Your task to perform on an android device: check storage Image 0: 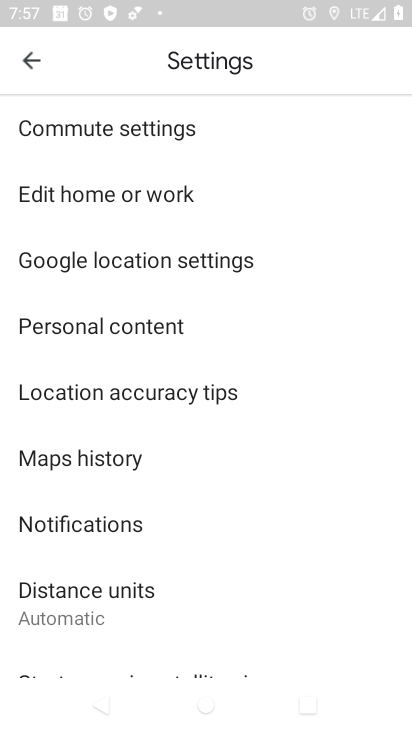
Step 0: press home button
Your task to perform on an android device: check storage Image 1: 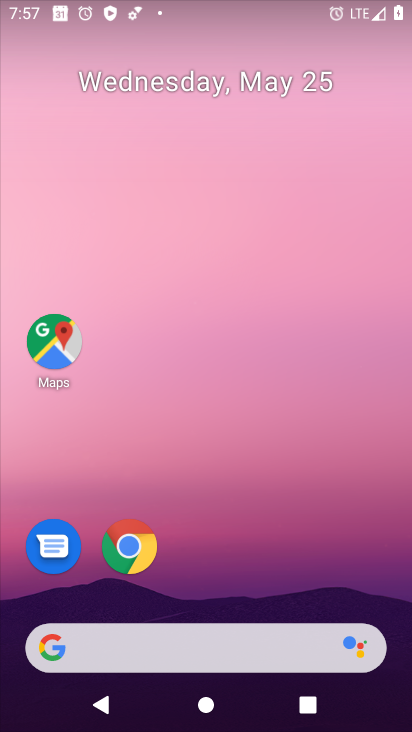
Step 1: drag from (379, 586) to (350, 199)
Your task to perform on an android device: check storage Image 2: 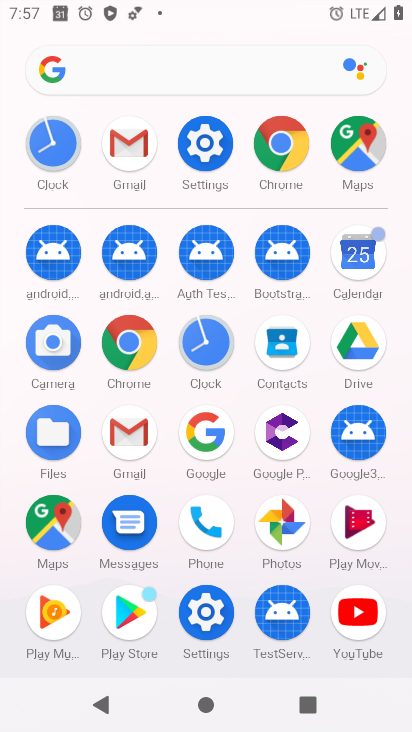
Step 2: click (216, 629)
Your task to perform on an android device: check storage Image 3: 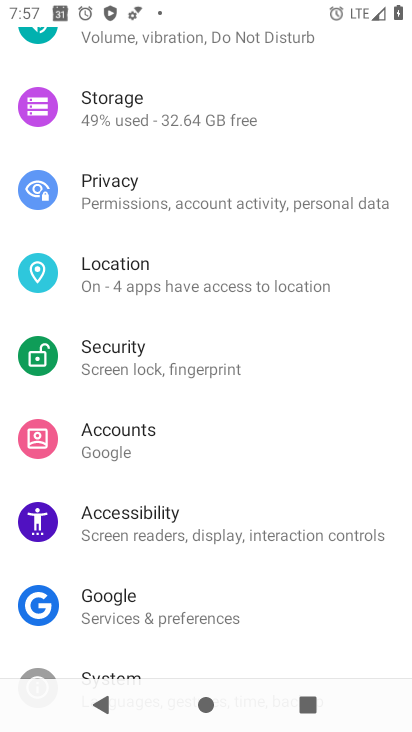
Step 3: drag from (337, 648) to (336, 524)
Your task to perform on an android device: check storage Image 4: 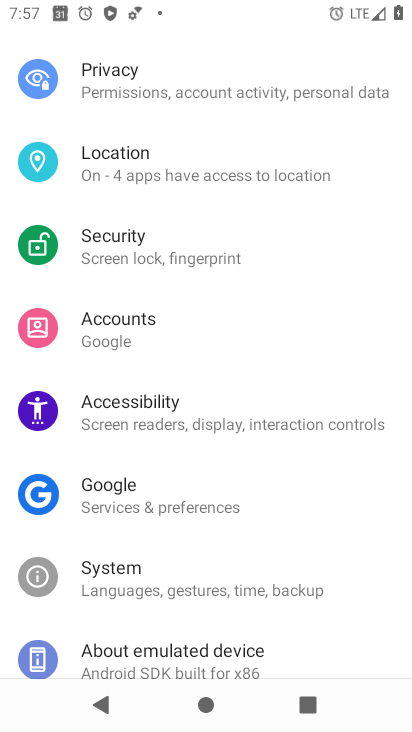
Step 4: drag from (356, 645) to (362, 524)
Your task to perform on an android device: check storage Image 5: 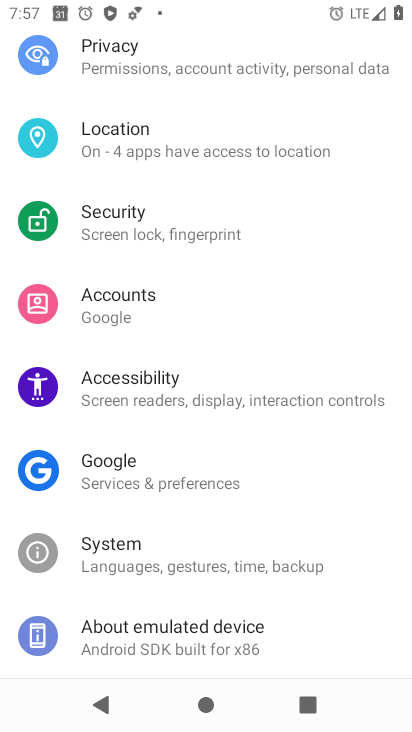
Step 5: drag from (352, 455) to (355, 525)
Your task to perform on an android device: check storage Image 6: 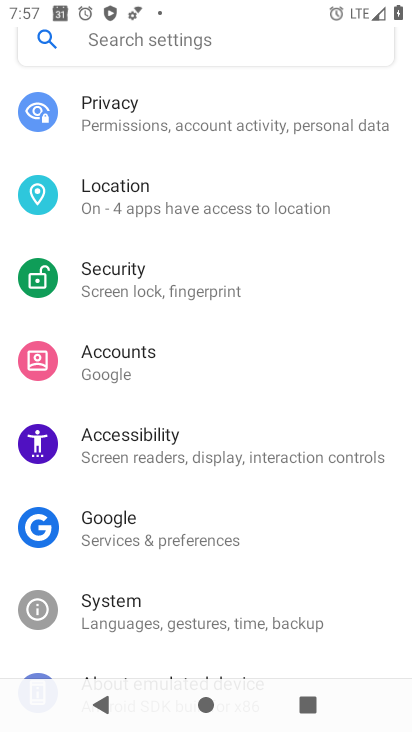
Step 6: drag from (367, 413) to (365, 493)
Your task to perform on an android device: check storage Image 7: 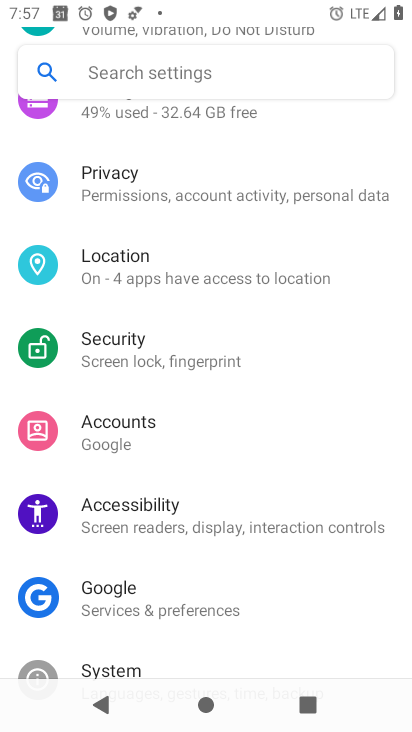
Step 7: drag from (359, 426) to (361, 502)
Your task to perform on an android device: check storage Image 8: 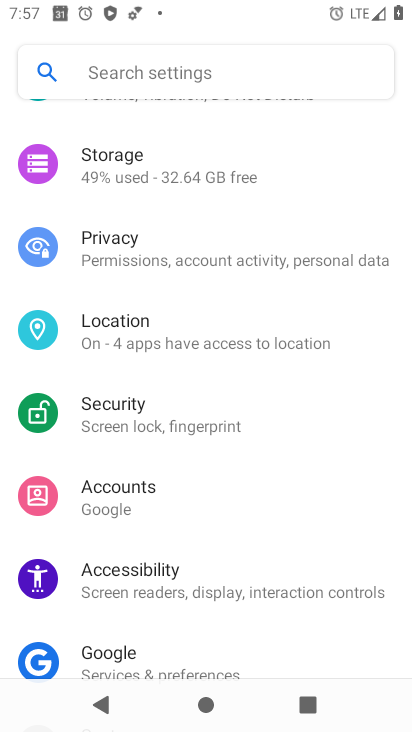
Step 8: drag from (359, 400) to (353, 504)
Your task to perform on an android device: check storage Image 9: 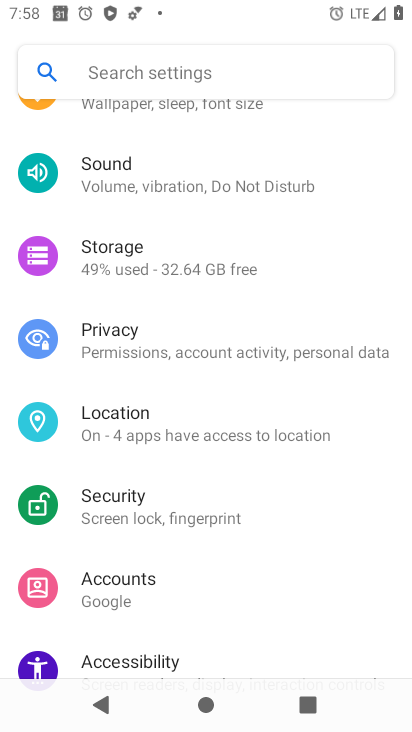
Step 9: drag from (337, 435) to (340, 509)
Your task to perform on an android device: check storage Image 10: 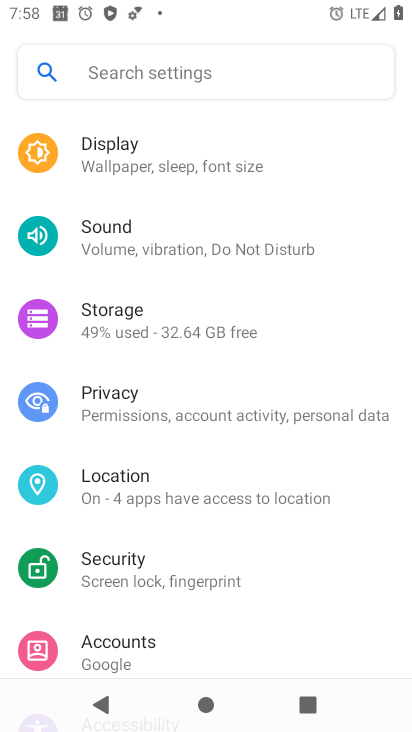
Step 10: drag from (349, 444) to (352, 508)
Your task to perform on an android device: check storage Image 11: 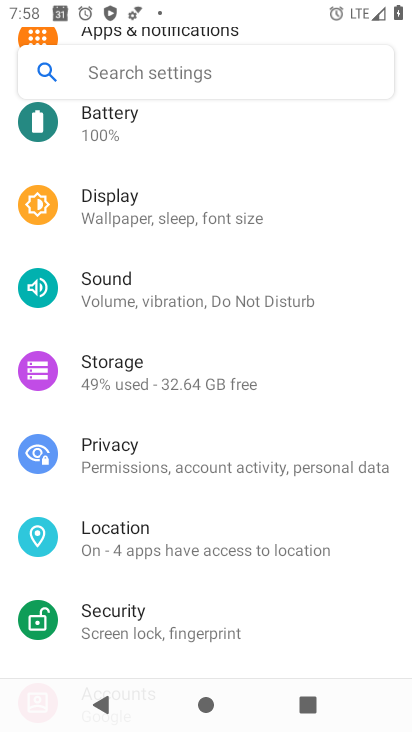
Step 11: drag from (357, 422) to (357, 525)
Your task to perform on an android device: check storage Image 12: 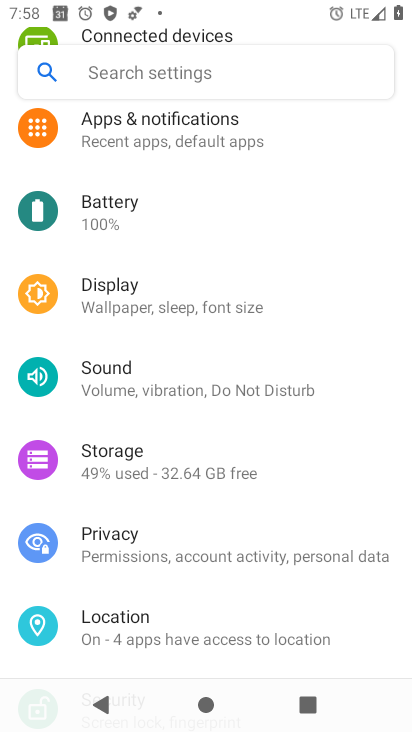
Step 12: drag from (360, 436) to (362, 527)
Your task to perform on an android device: check storage Image 13: 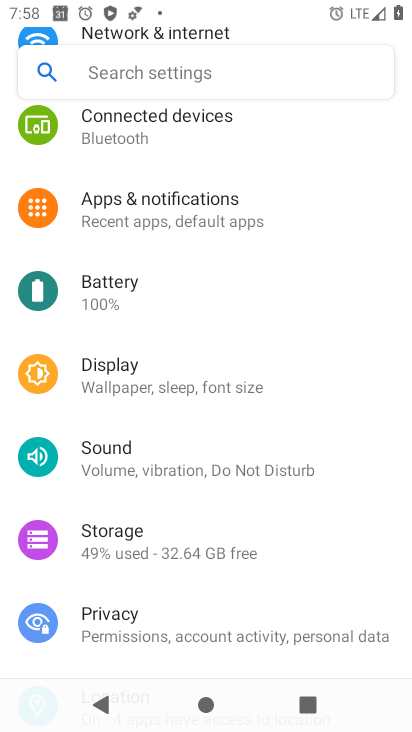
Step 13: click (239, 557)
Your task to perform on an android device: check storage Image 14: 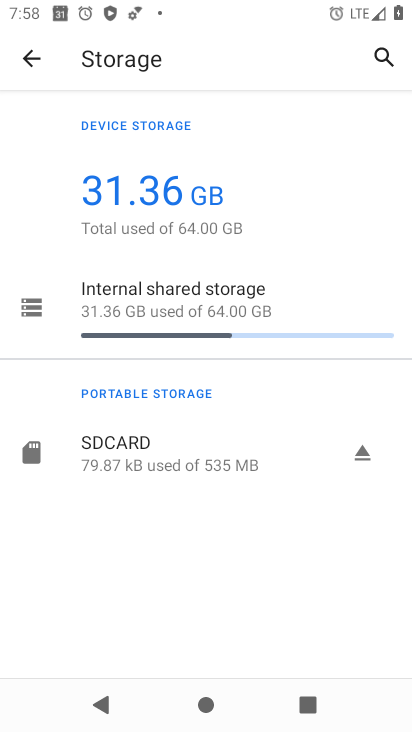
Step 14: task complete